Your task to perform on an android device: add a contact in the contacts app Image 0: 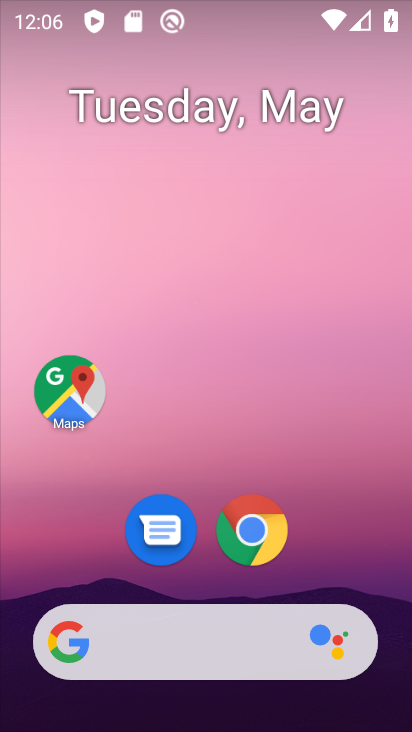
Step 0: drag from (358, 559) to (234, 29)
Your task to perform on an android device: add a contact in the contacts app Image 1: 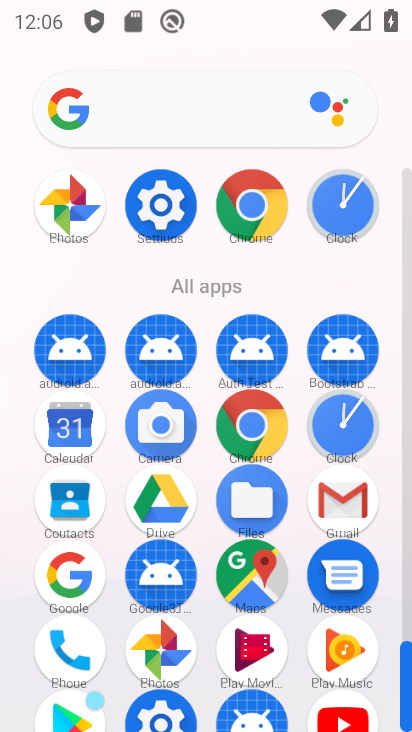
Step 1: drag from (12, 568) to (9, 233)
Your task to perform on an android device: add a contact in the contacts app Image 2: 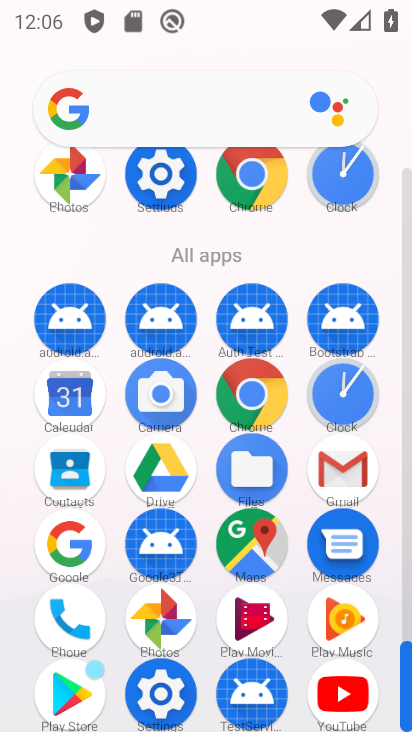
Step 2: click (65, 460)
Your task to perform on an android device: add a contact in the contacts app Image 3: 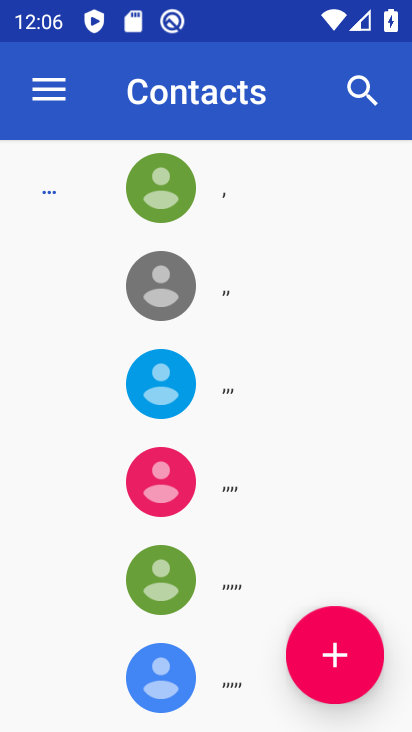
Step 3: click (330, 637)
Your task to perform on an android device: add a contact in the contacts app Image 4: 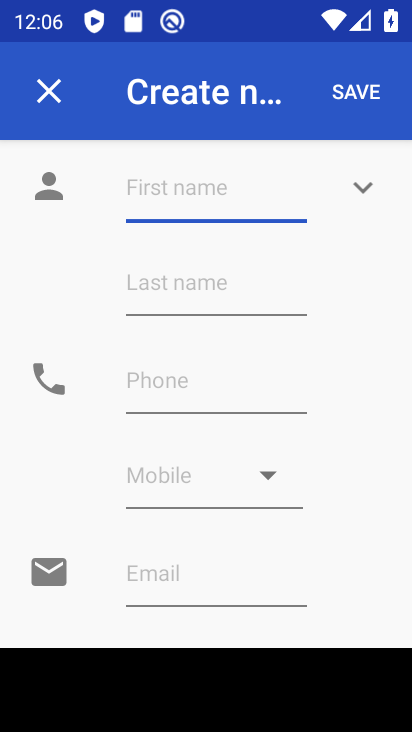
Step 4: type "Zbhkj"
Your task to perform on an android device: add a contact in the contacts app Image 5: 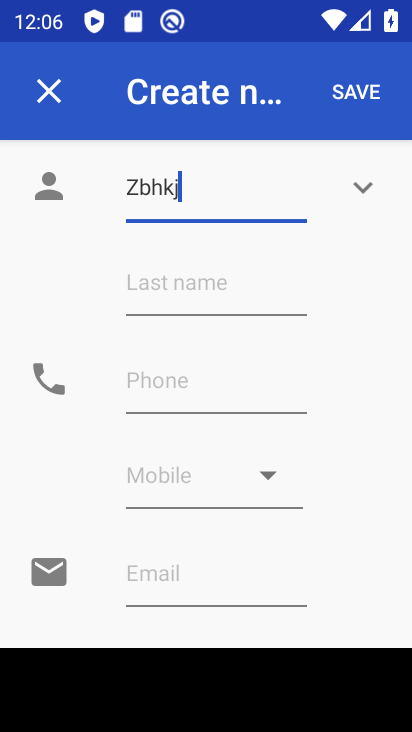
Step 5: type ""
Your task to perform on an android device: add a contact in the contacts app Image 6: 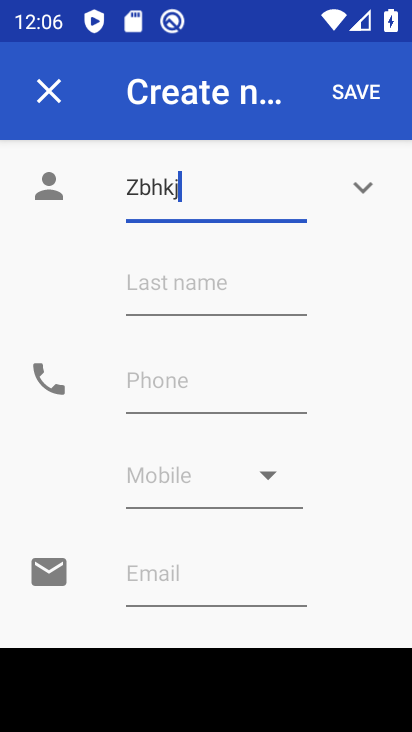
Step 6: click (169, 375)
Your task to perform on an android device: add a contact in the contacts app Image 7: 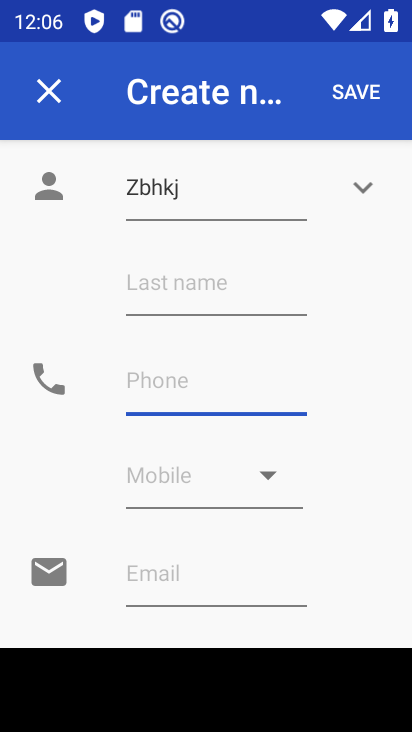
Step 7: type "456787890"
Your task to perform on an android device: add a contact in the contacts app Image 8: 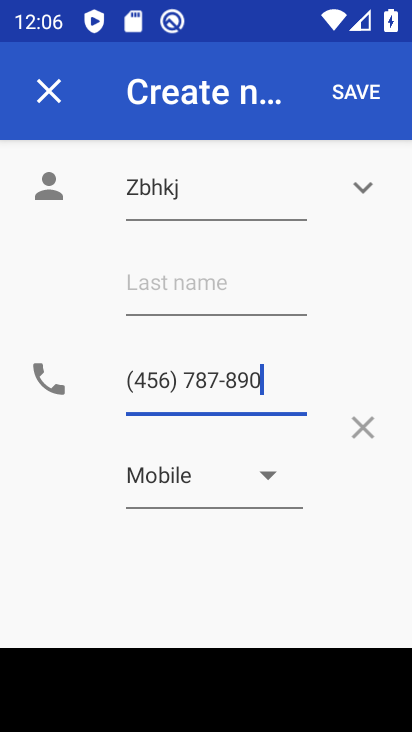
Step 8: type ""
Your task to perform on an android device: add a contact in the contacts app Image 9: 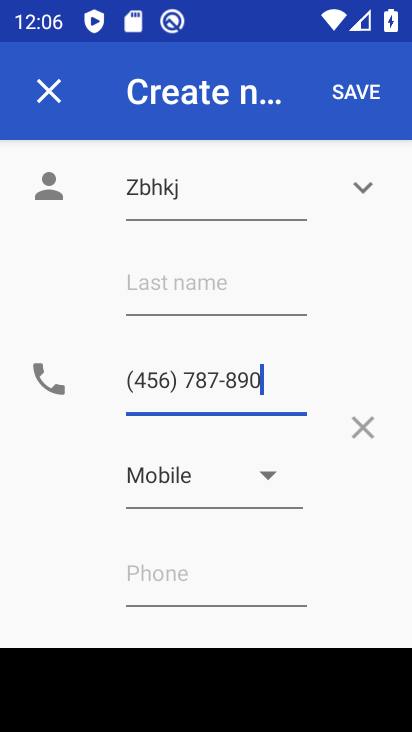
Step 9: click (365, 88)
Your task to perform on an android device: add a contact in the contacts app Image 10: 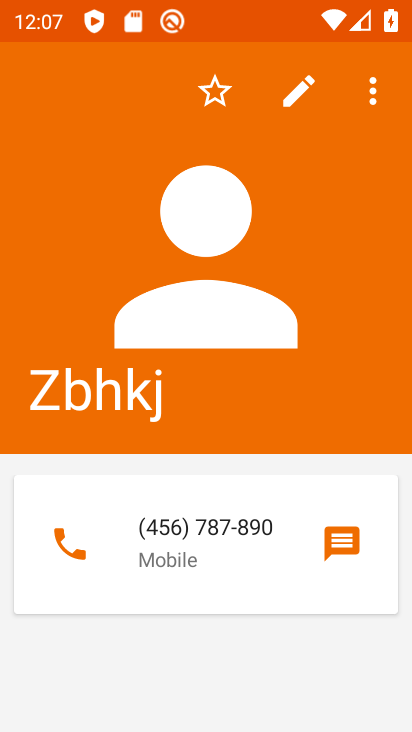
Step 10: task complete